Your task to perform on an android device: Open Youtube and go to the subscriptions tab Image 0: 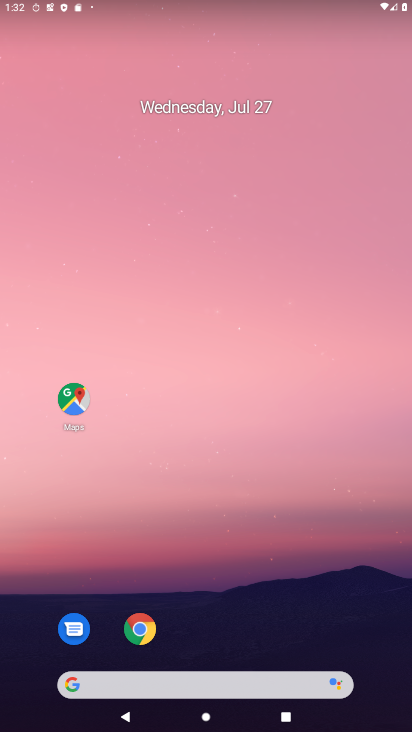
Step 0: drag from (347, 633) to (141, 62)
Your task to perform on an android device: Open Youtube and go to the subscriptions tab Image 1: 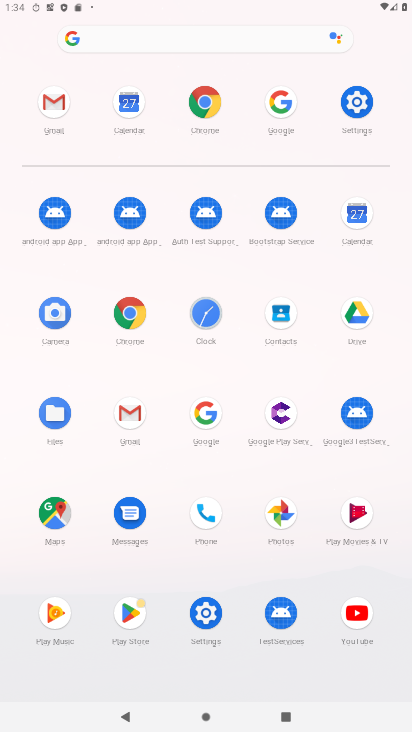
Step 1: click (356, 610)
Your task to perform on an android device: Open Youtube and go to the subscriptions tab Image 2: 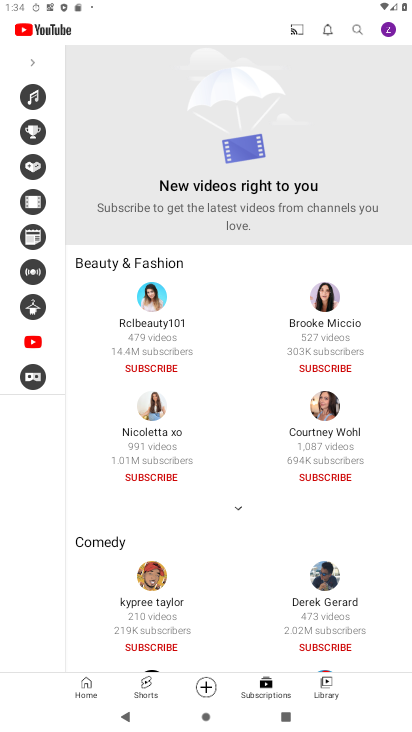
Step 2: task complete